Your task to perform on an android device: toggle location history Image 0: 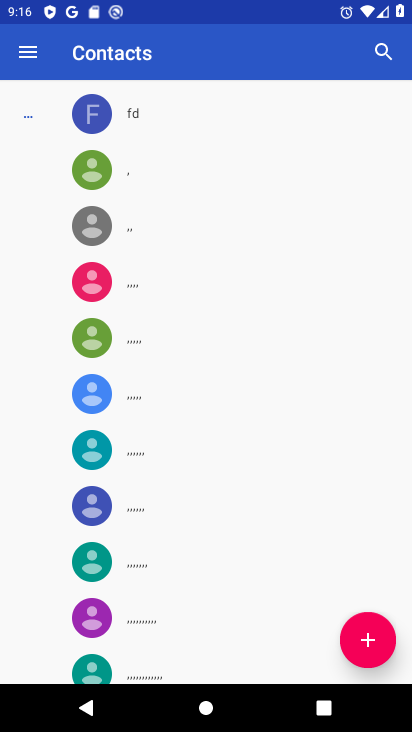
Step 0: press home button
Your task to perform on an android device: toggle location history Image 1: 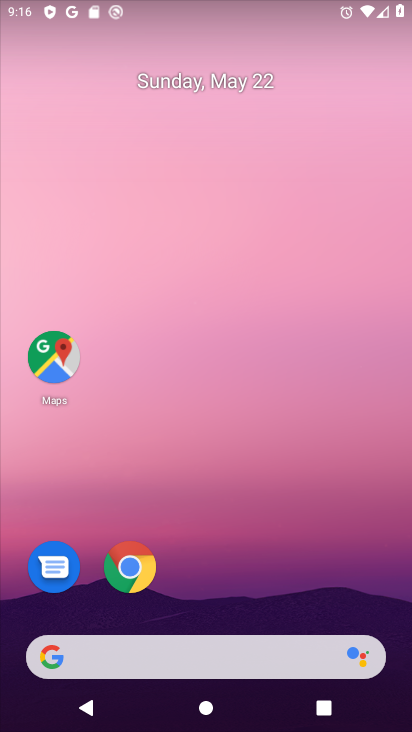
Step 1: drag from (202, 485) to (271, 50)
Your task to perform on an android device: toggle location history Image 2: 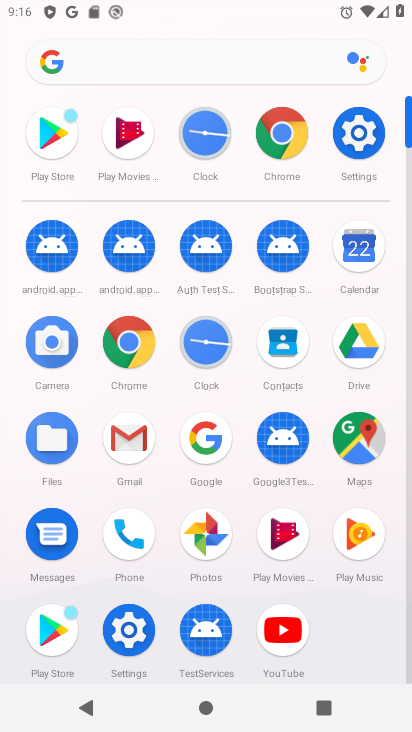
Step 2: click (352, 131)
Your task to perform on an android device: toggle location history Image 3: 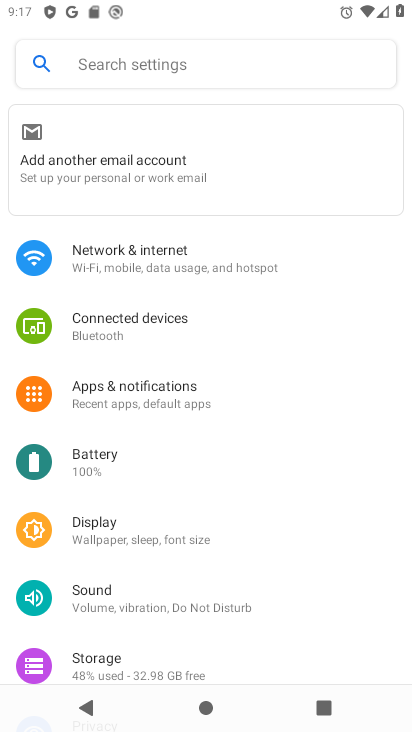
Step 3: drag from (162, 590) to (241, 251)
Your task to perform on an android device: toggle location history Image 4: 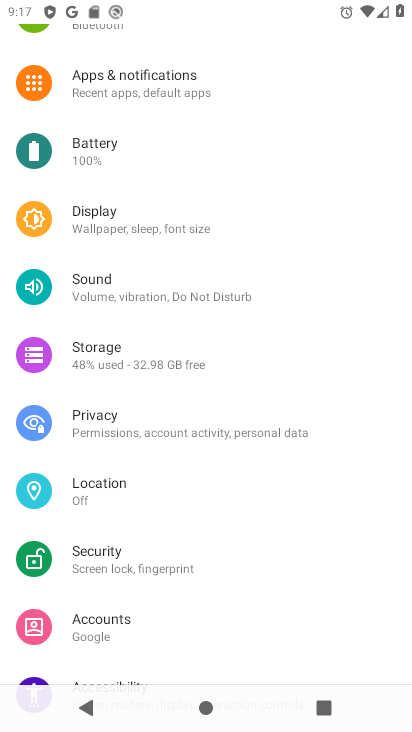
Step 4: click (117, 496)
Your task to perform on an android device: toggle location history Image 5: 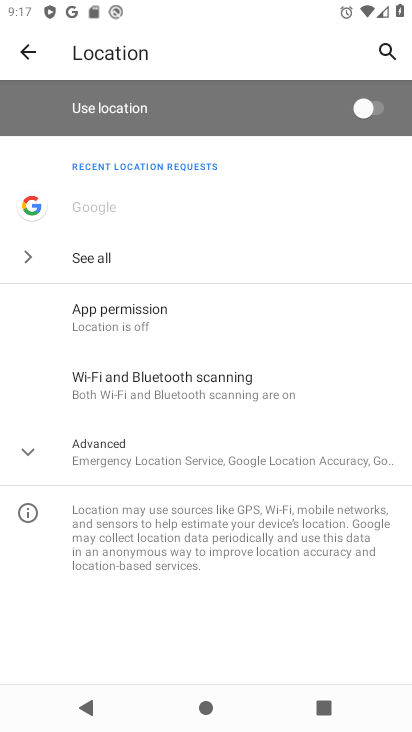
Step 5: click (149, 454)
Your task to perform on an android device: toggle location history Image 6: 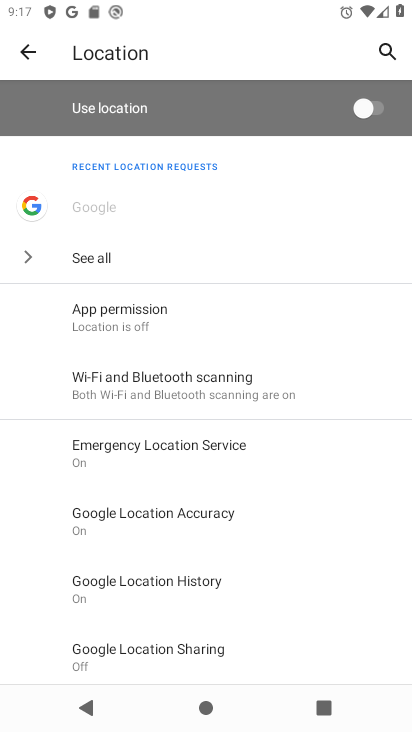
Step 6: click (177, 582)
Your task to perform on an android device: toggle location history Image 7: 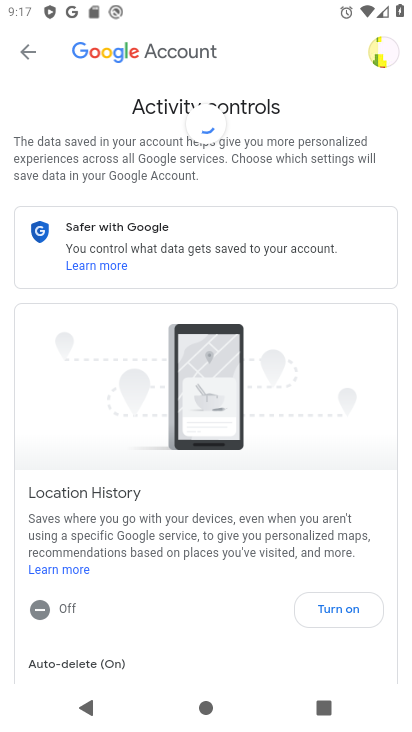
Step 7: click (325, 610)
Your task to perform on an android device: toggle location history Image 8: 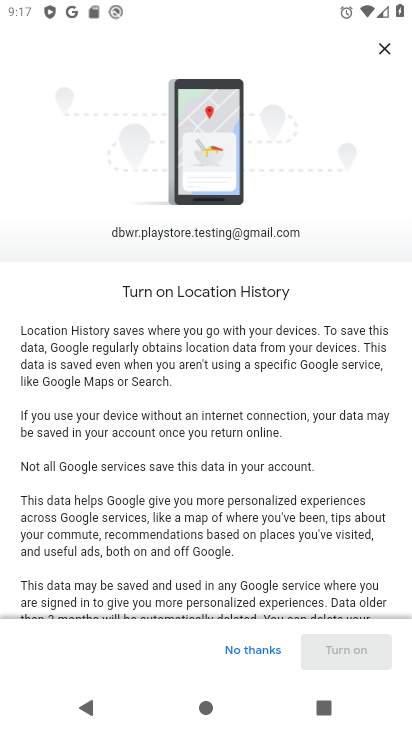
Step 8: drag from (251, 587) to (282, 164)
Your task to perform on an android device: toggle location history Image 9: 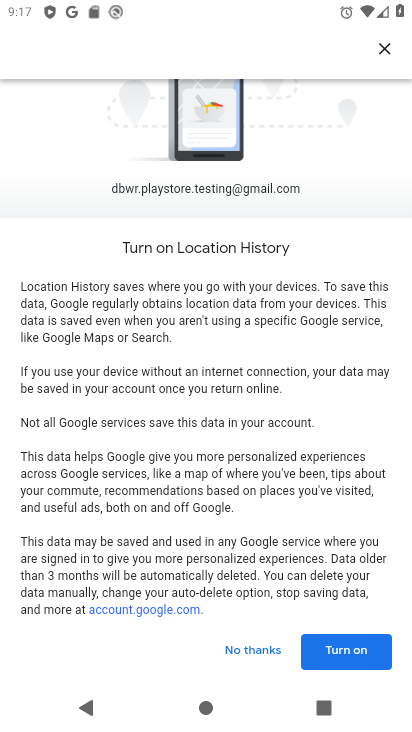
Step 9: drag from (319, 519) to (363, 295)
Your task to perform on an android device: toggle location history Image 10: 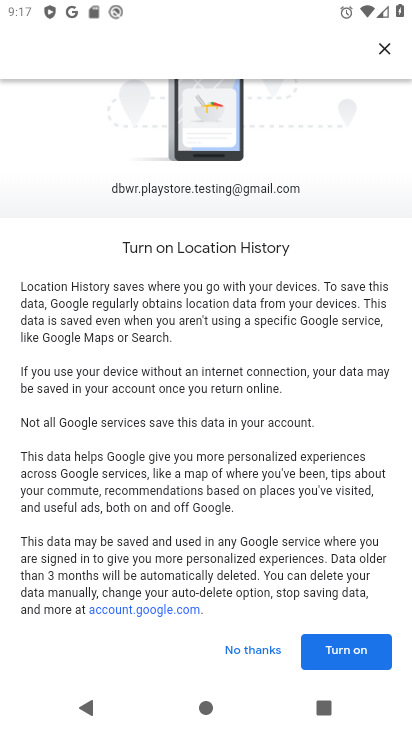
Step 10: click (365, 655)
Your task to perform on an android device: toggle location history Image 11: 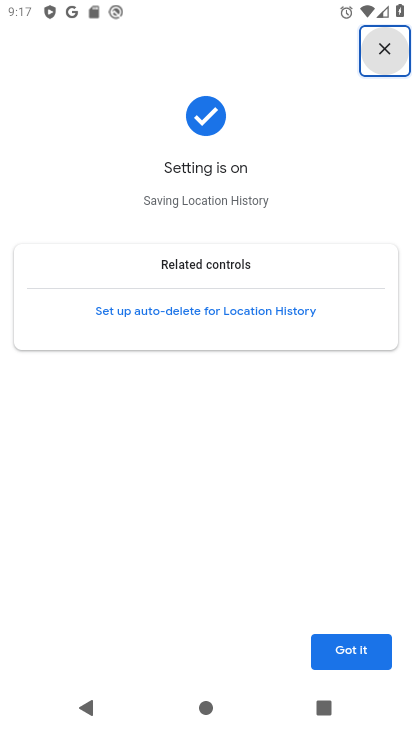
Step 11: click (345, 652)
Your task to perform on an android device: toggle location history Image 12: 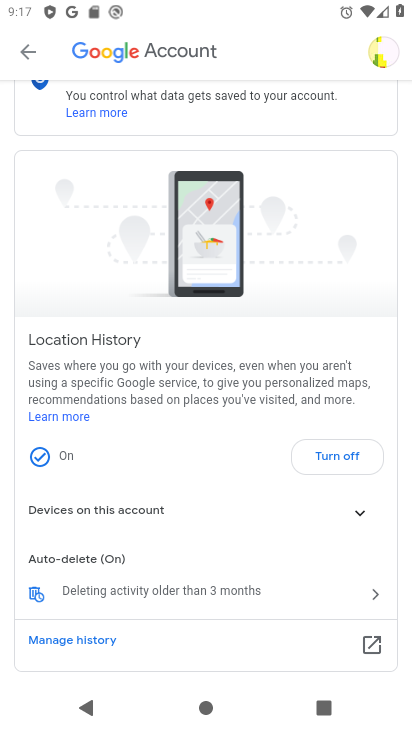
Step 12: task complete